Your task to perform on an android device: Check the weather Image 0: 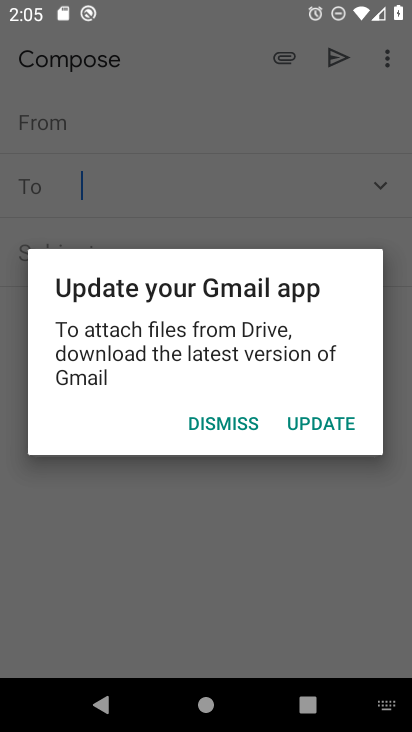
Step 0: press home button
Your task to perform on an android device: Check the weather Image 1: 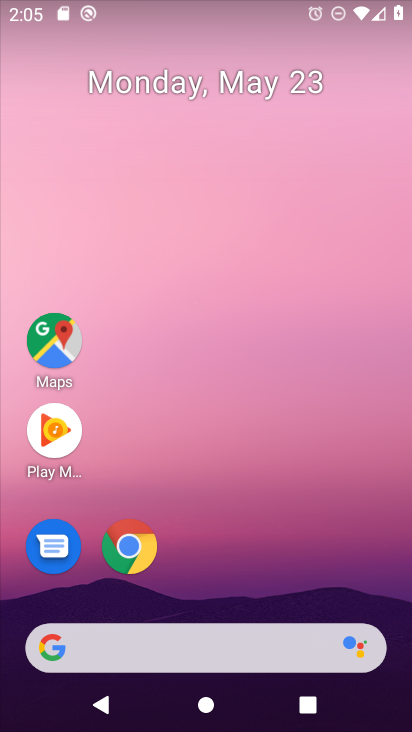
Step 1: drag from (239, 527) to (369, 35)
Your task to perform on an android device: Check the weather Image 2: 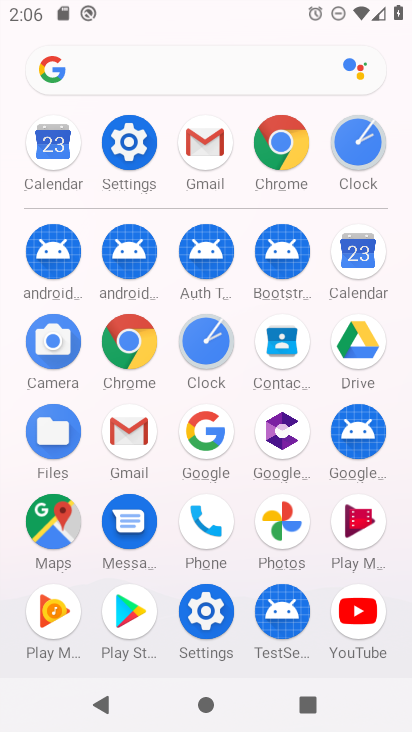
Step 2: click (217, 442)
Your task to perform on an android device: Check the weather Image 3: 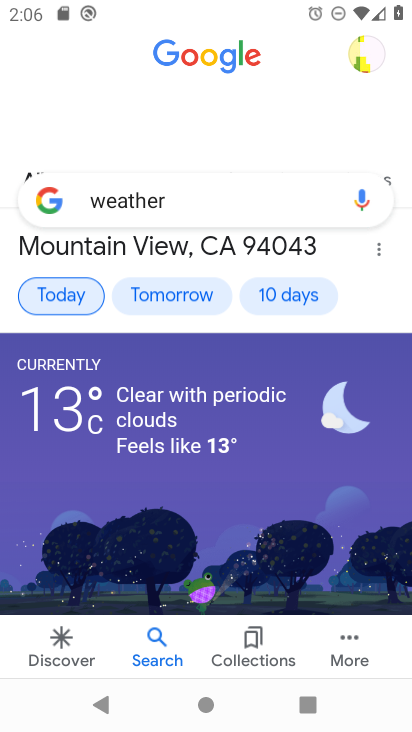
Step 3: task complete